Your task to perform on an android device: Open settings on Google Maps Image 0: 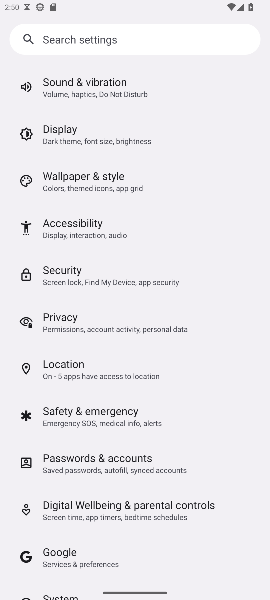
Step 0: press home button
Your task to perform on an android device: Open settings on Google Maps Image 1: 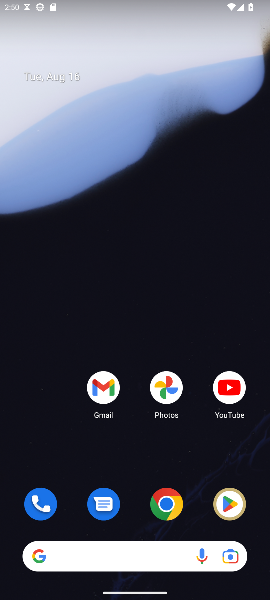
Step 1: drag from (156, 542) to (102, 281)
Your task to perform on an android device: Open settings on Google Maps Image 2: 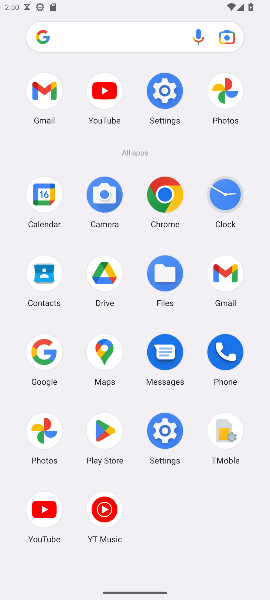
Step 2: click (93, 346)
Your task to perform on an android device: Open settings on Google Maps Image 3: 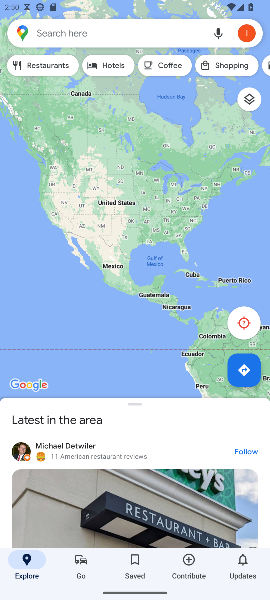
Step 3: click (234, 37)
Your task to perform on an android device: Open settings on Google Maps Image 4: 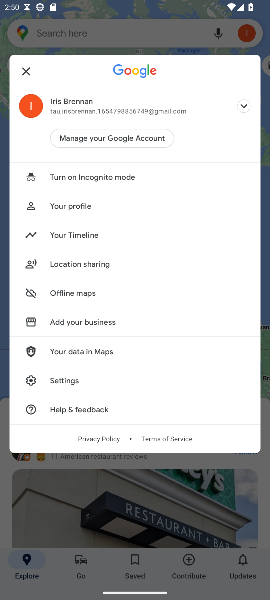
Step 4: click (68, 384)
Your task to perform on an android device: Open settings on Google Maps Image 5: 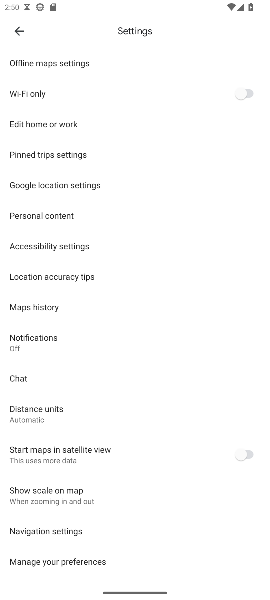
Step 5: task complete